Your task to perform on an android device: turn off location history Image 0: 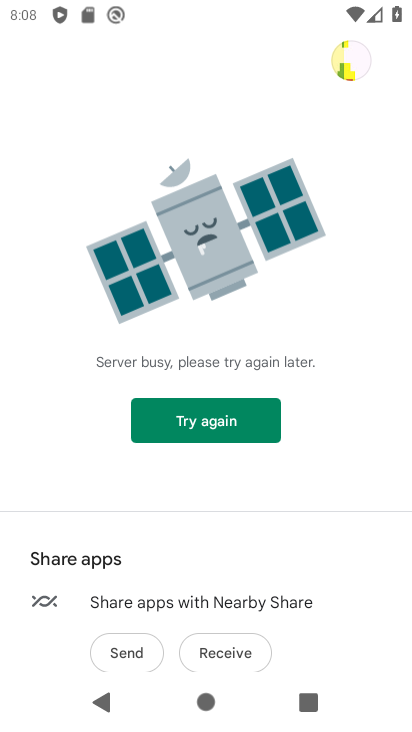
Step 0: press home button
Your task to perform on an android device: turn off location history Image 1: 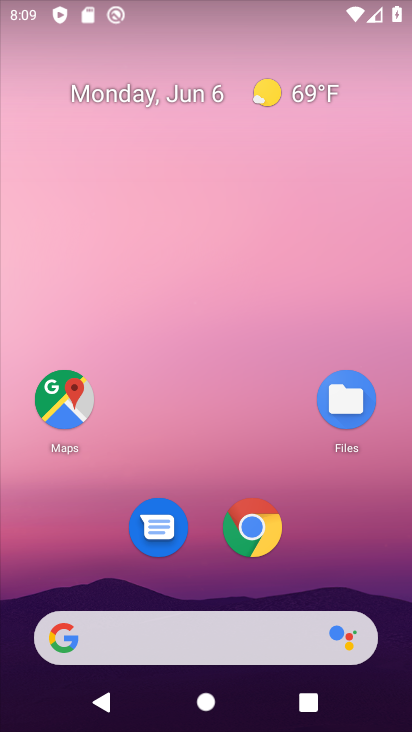
Step 1: drag from (318, 557) to (373, 50)
Your task to perform on an android device: turn off location history Image 2: 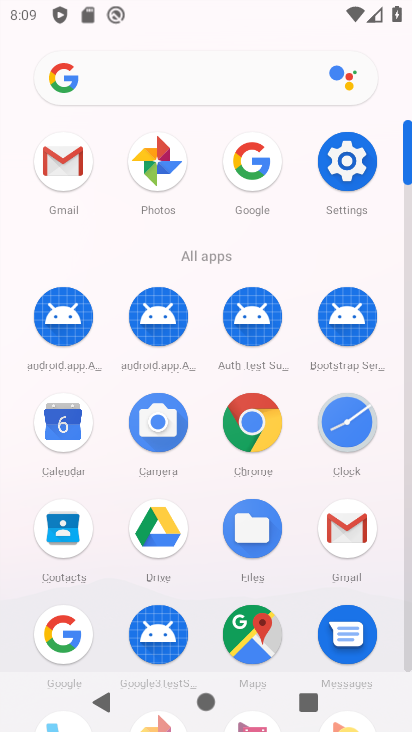
Step 2: click (354, 162)
Your task to perform on an android device: turn off location history Image 3: 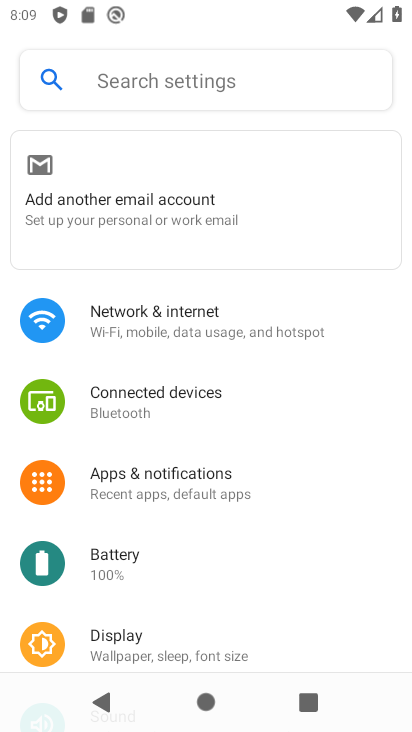
Step 3: drag from (205, 603) to (244, 30)
Your task to perform on an android device: turn off location history Image 4: 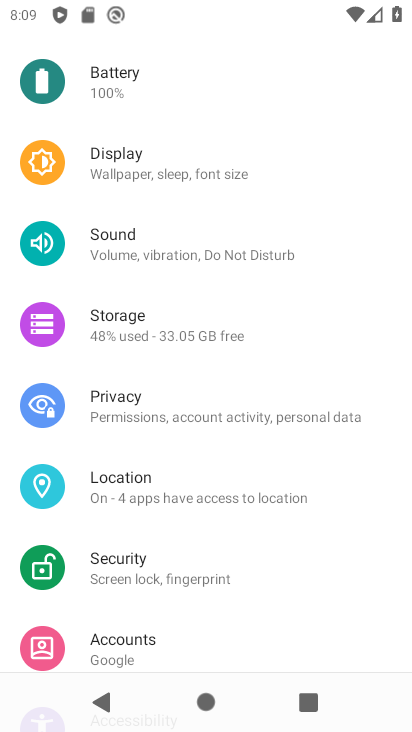
Step 4: click (161, 485)
Your task to perform on an android device: turn off location history Image 5: 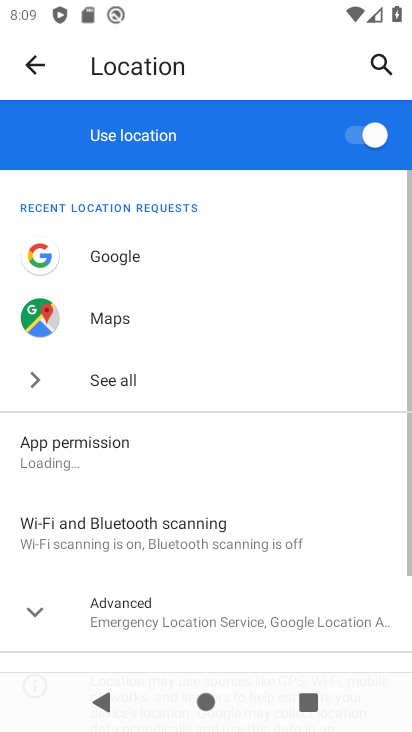
Step 5: click (135, 618)
Your task to perform on an android device: turn off location history Image 6: 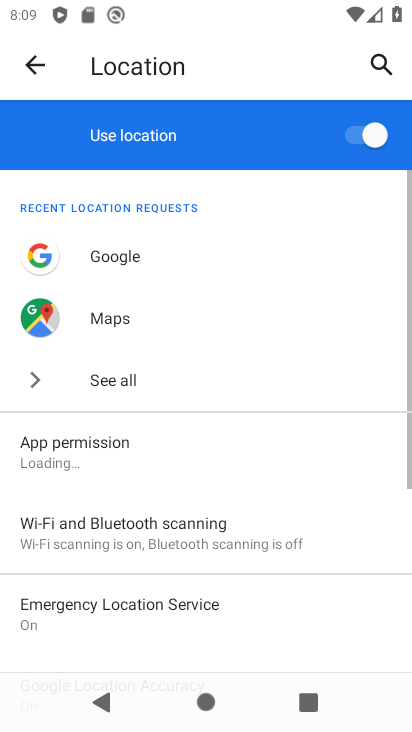
Step 6: drag from (276, 495) to (266, 142)
Your task to perform on an android device: turn off location history Image 7: 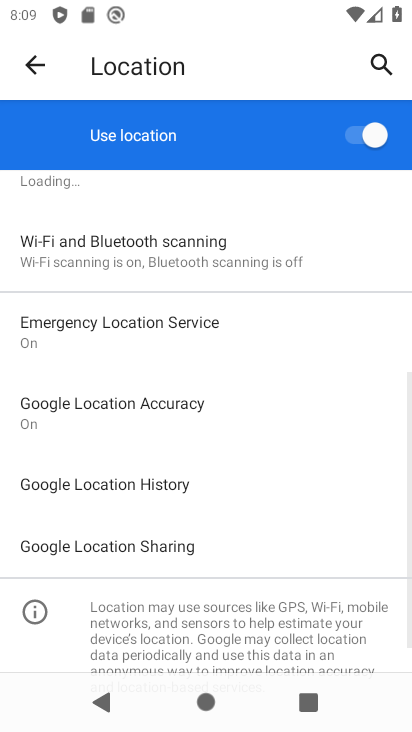
Step 7: click (165, 495)
Your task to perform on an android device: turn off location history Image 8: 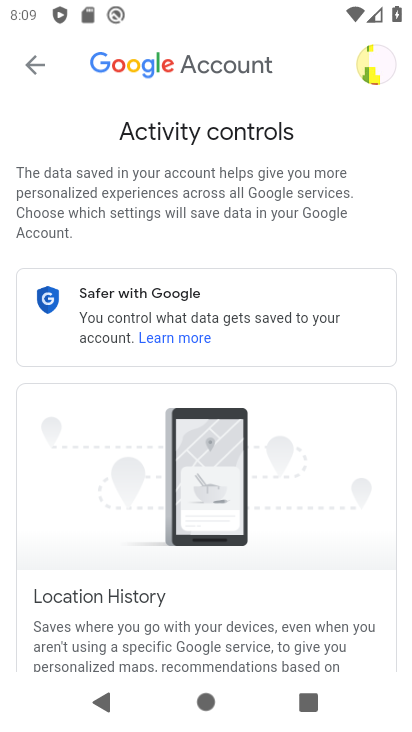
Step 8: task complete